Your task to perform on an android device: Open Google Chrome and click the shortcut for Amazon.com Image 0: 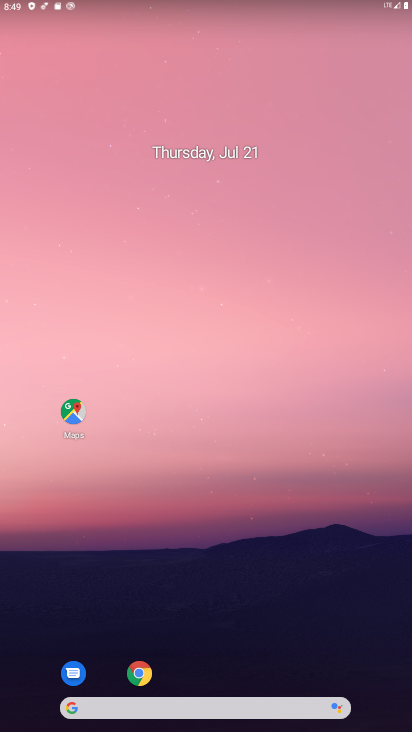
Step 0: click (138, 664)
Your task to perform on an android device: Open Google Chrome and click the shortcut for Amazon.com Image 1: 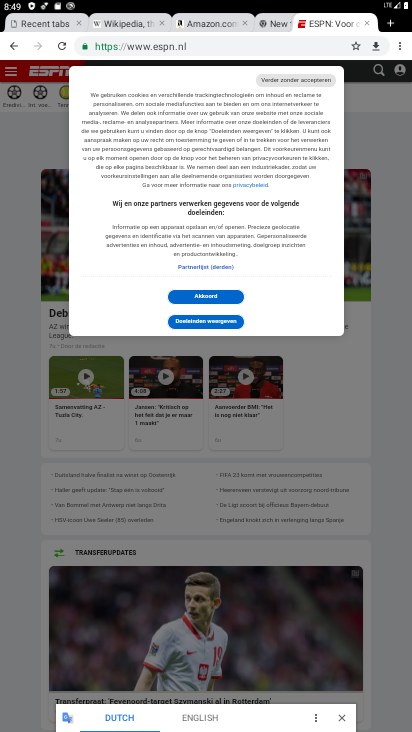
Step 1: click (388, 19)
Your task to perform on an android device: Open Google Chrome and click the shortcut for Amazon.com Image 2: 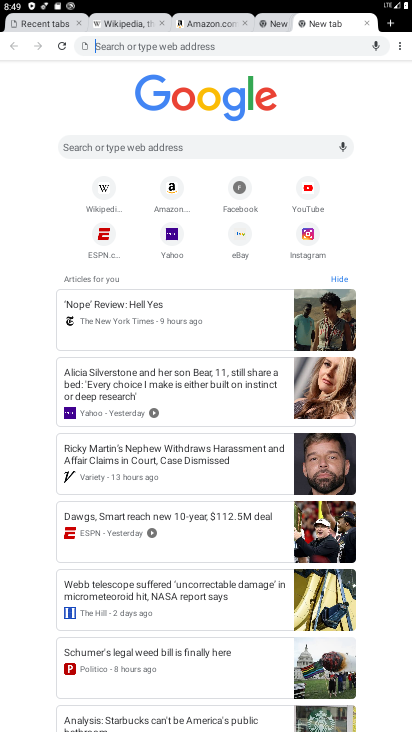
Step 2: click (167, 202)
Your task to perform on an android device: Open Google Chrome and click the shortcut for Amazon.com Image 3: 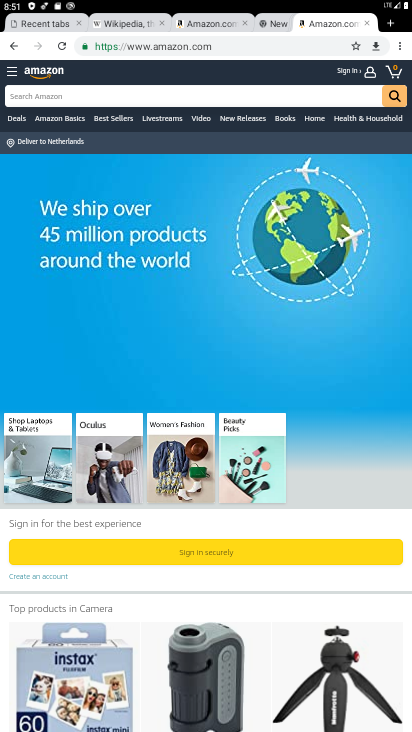
Step 3: task complete